Your task to perform on an android device: Go to settings Image 0: 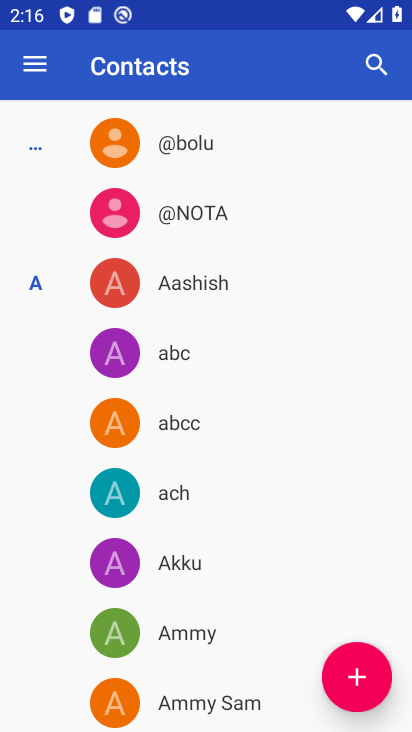
Step 0: press back button
Your task to perform on an android device: Go to settings Image 1: 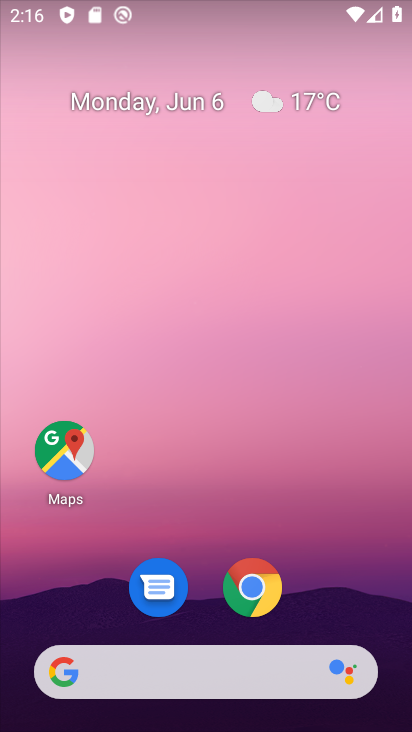
Step 1: drag from (319, 570) to (256, 80)
Your task to perform on an android device: Go to settings Image 2: 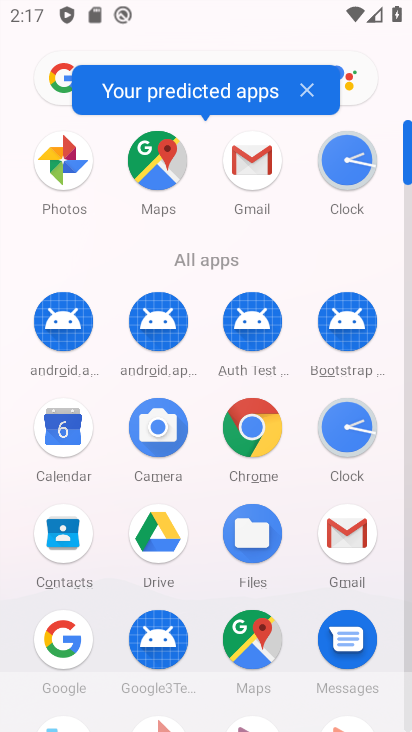
Step 2: drag from (4, 563) to (12, 239)
Your task to perform on an android device: Go to settings Image 3: 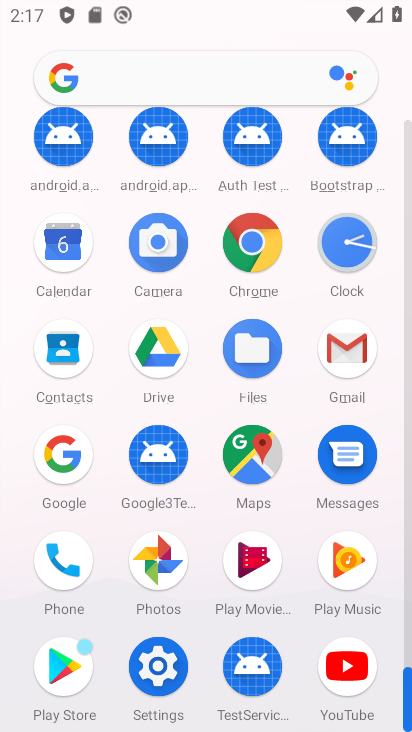
Step 3: click (156, 663)
Your task to perform on an android device: Go to settings Image 4: 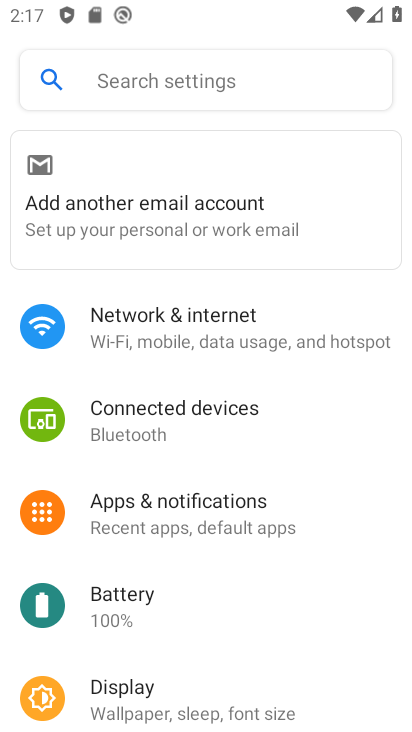
Step 4: task complete